Your task to perform on an android device: change the clock display to digital Image 0: 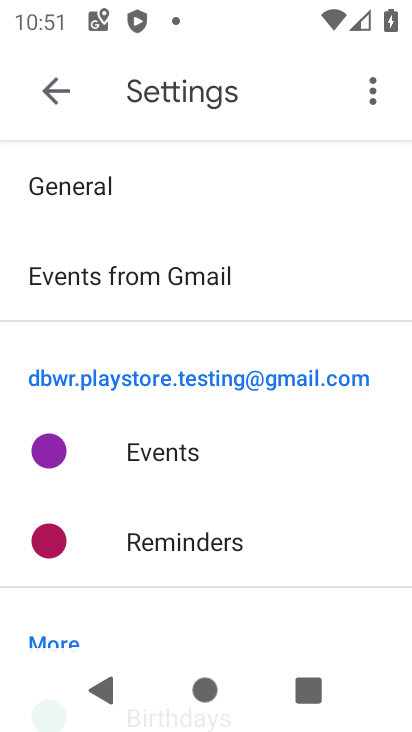
Step 0: press home button
Your task to perform on an android device: change the clock display to digital Image 1: 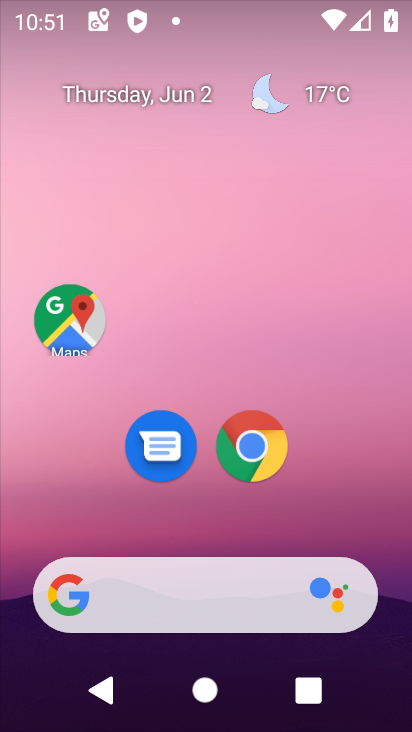
Step 1: drag from (349, 489) to (331, 167)
Your task to perform on an android device: change the clock display to digital Image 2: 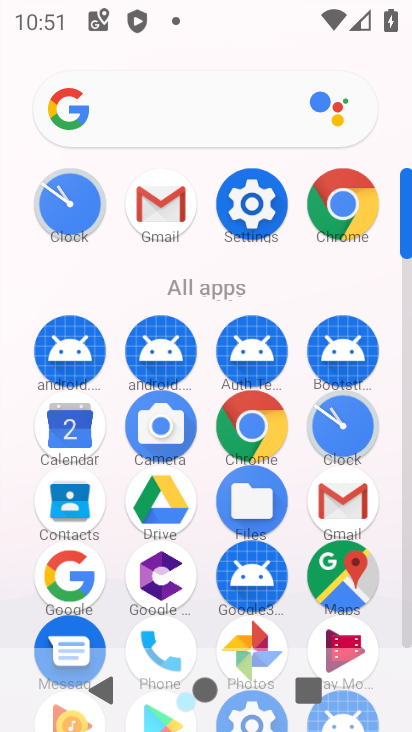
Step 2: click (328, 422)
Your task to perform on an android device: change the clock display to digital Image 3: 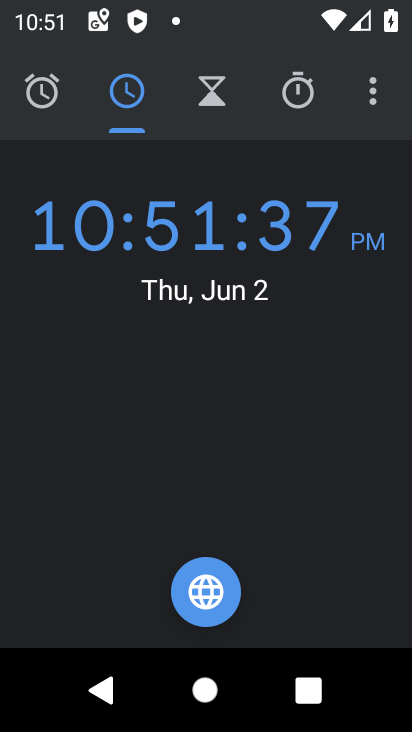
Step 3: task complete